Your task to perform on an android device: Go to Reddit.com Image 0: 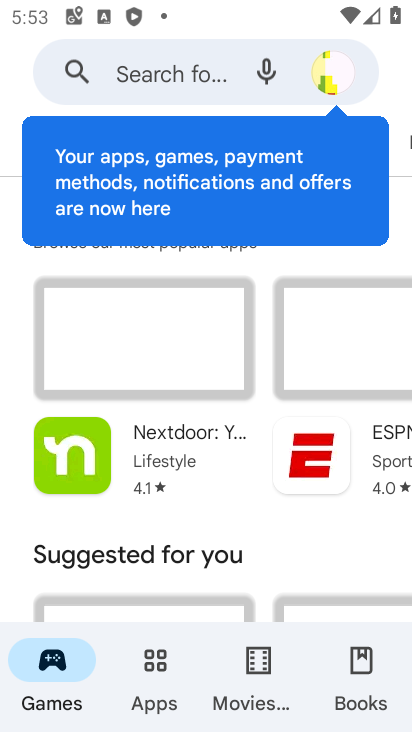
Step 0: press home button
Your task to perform on an android device: Go to Reddit.com Image 1: 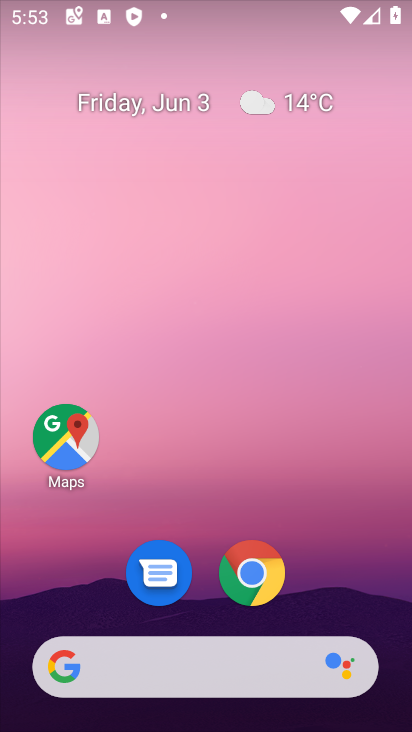
Step 1: drag from (222, 652) to (300, 12)
Your task to perform on an android device: Go to Reddit.com Image 2: 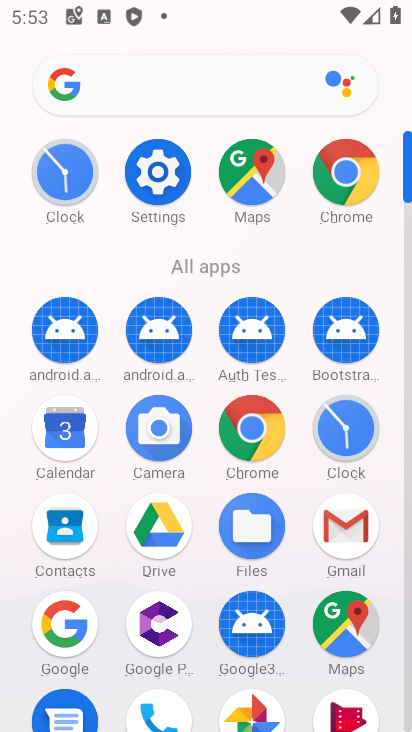
Step 2: click (259, 432)
Your task to perform on an android device: Go to Reddit.com Image 3: 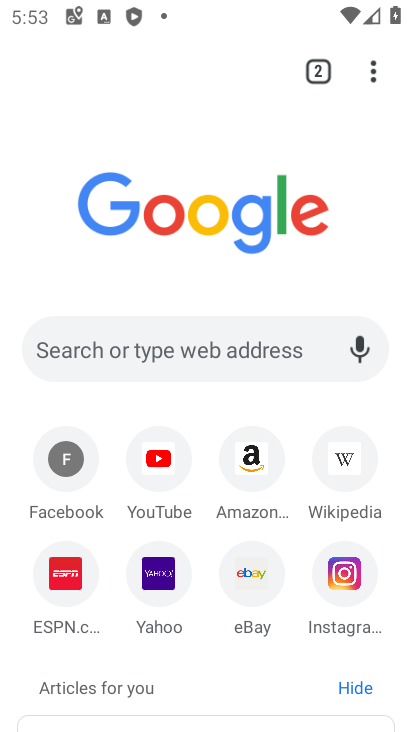
Step 3: click (197, 341)
Your task to perform on an android device: Go to Reddit.com Image 4: 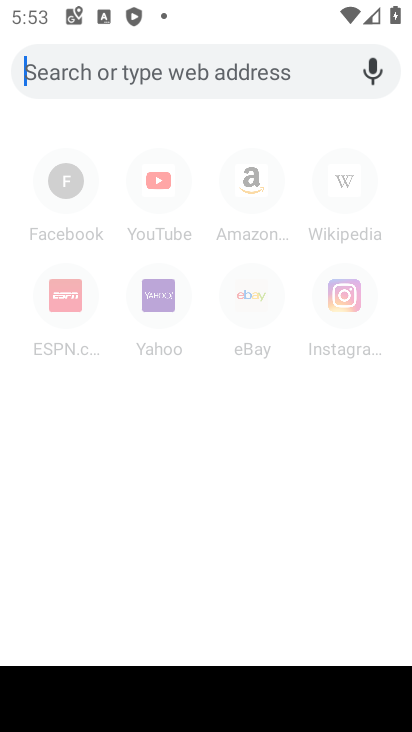
Step 4: type "reddit.com"
Your task to perform on an android device: Go to Reddit.com Image 5: 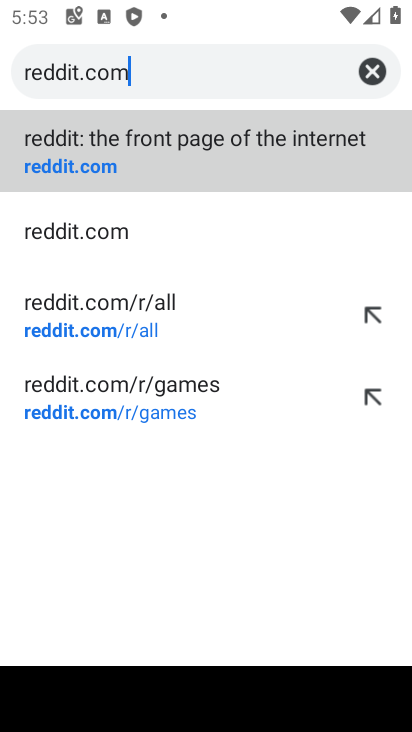
Step 5: click (214, 153)
Your task to perform on an android device: Go to Reddit.com Image 6: 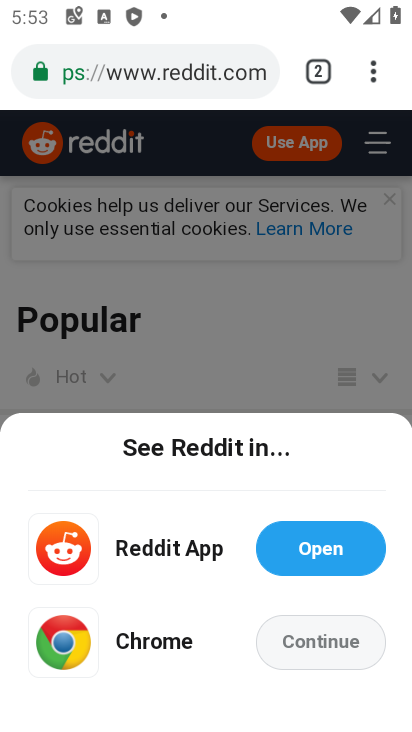
Step 6: press home button
Your task to perform on an android device: Go to Reddit.com Image 7: 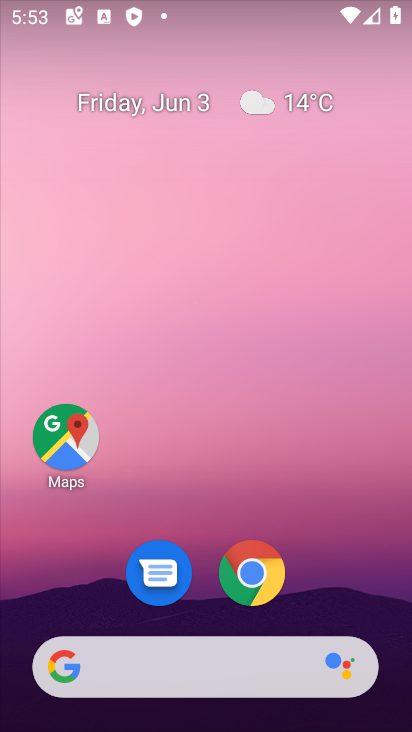
Step 7: drag from (216, 656) to (248, 4)
Your task to perform on an android device: Go to Reddit.com Image 8: 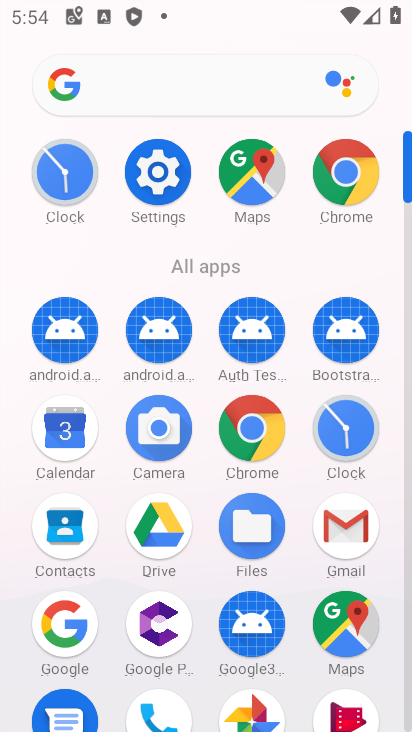
Step 8: click (241, 425)
Your task to perform on an android device: Go to Reddit.com Image 9: 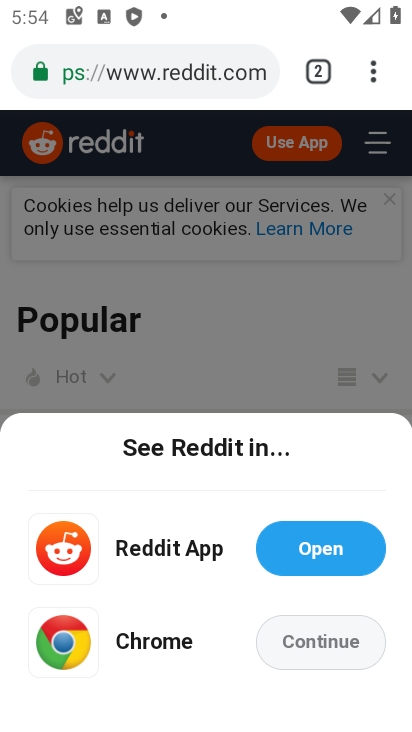
Step 9: task complete